Your task to perform on an android device: Open the phone app and click the voicemail tab. Image 0: 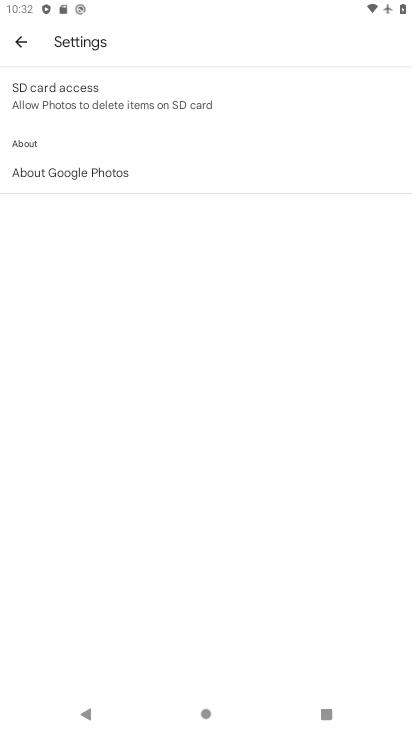
Step 0: press home button
Your task to perform on an android device: Open the phone app and click the voicemail tab. Image 1: 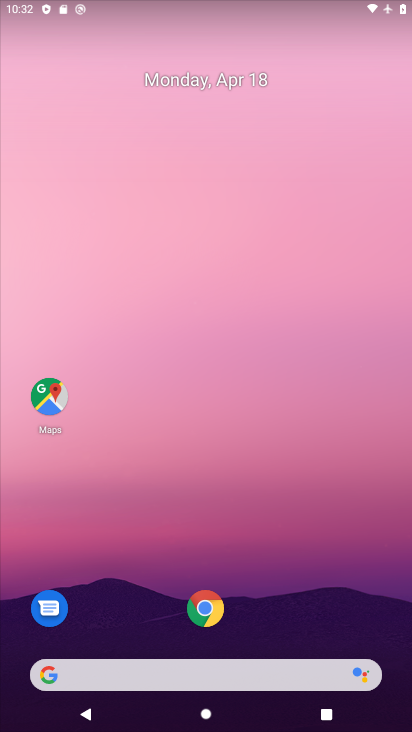
Step 1: drag from (291, 579) to (340, 124)
Your task to perform on an android device: Open the phone app and click the voicemail tab. Image 2: 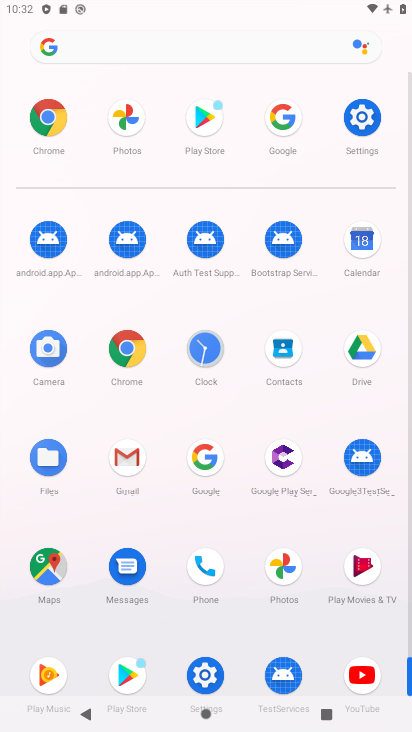
Step 2: click (202, 569)
Your task to perform on an android device: Open the phone app and click the voicemail tab. Image 3: 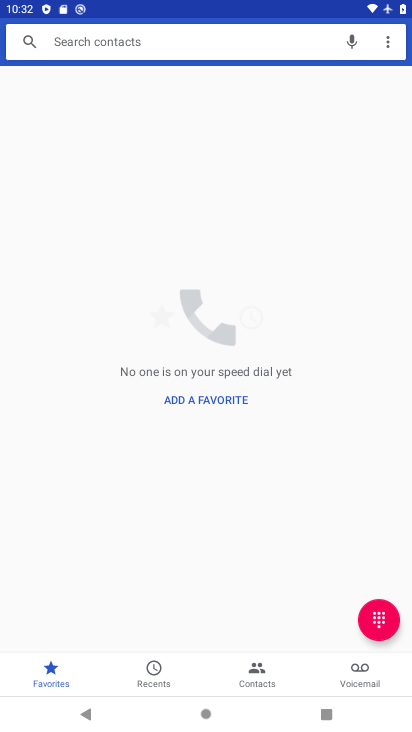
Step 3: click (376, 679)
Your task to perform on an android device: Open the phone app and click the voicemail tab. Image 4: 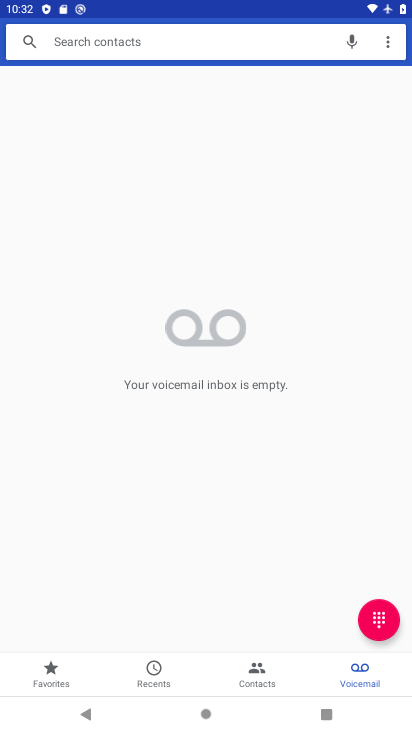
Step 4: task complete